Your task to perform on an android device: change the upload size in google photos Image 0: 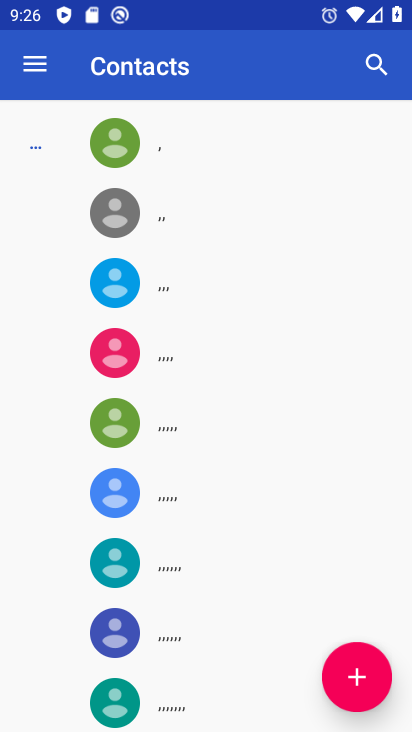
Step 0: press home button
Your task to perform on an android device: change the upload size in google photos Image 1: 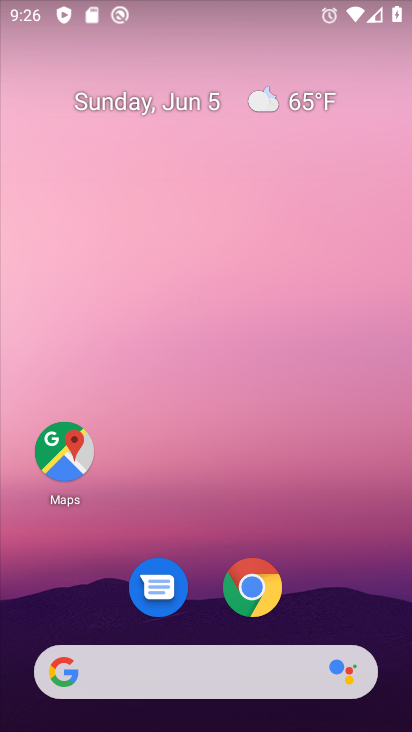
Step 1: drag from (79, 646) to (189, 100)
Your task to perform on an android device: change the upload size in google photos Image 2: 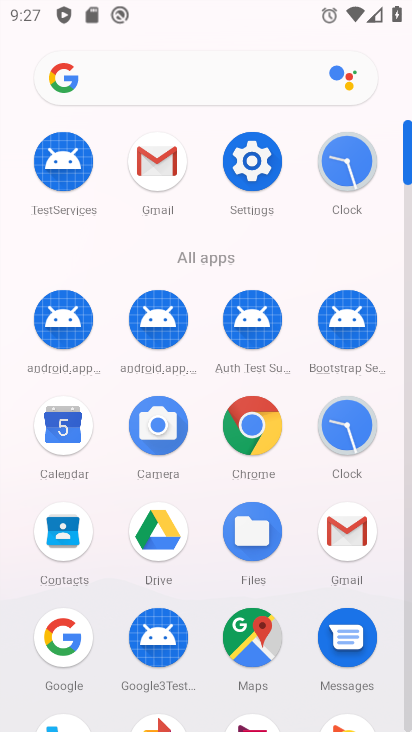
Step 2: drag from (238, 674) to (264, 447)
Your task to perform on an android device: change the upload size in google photos Image 3: 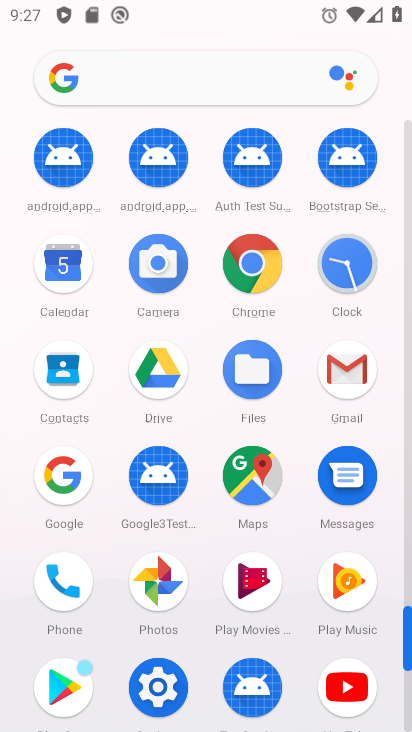
Step 3: click (155, 575)
Your task to perform on an android device: change the upload size in google photos Image 4: 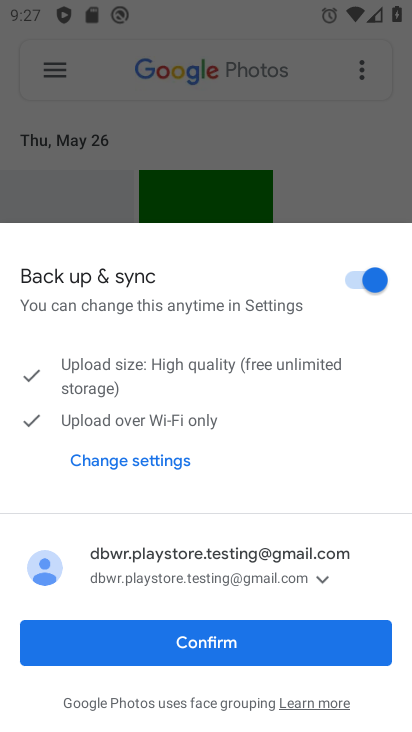
Step 4: click (236, 645)
Your task to perform on an android device: change the upload size in google photos Image 5: 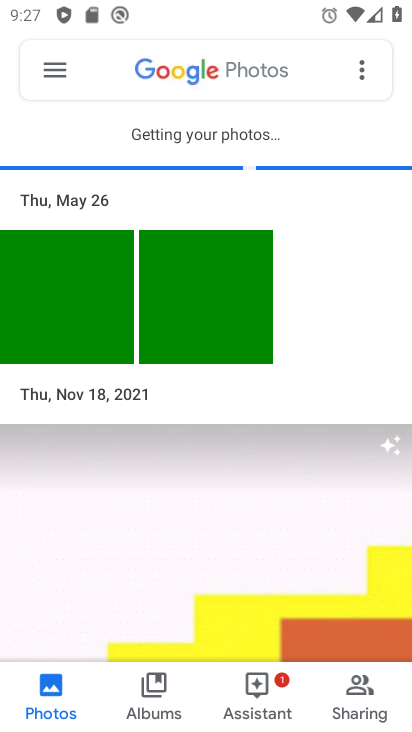
Step 5: click (43, 62)
Your task to perform on an android device: change the upload size in google photos Image 6: 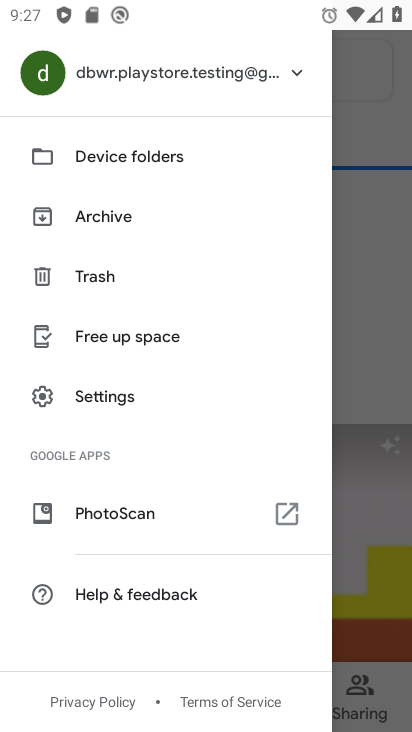
Step 6: drag from (169, 666) to (247, 220)
Your task to perform on an android device: change the upload size in google photos Image 7: 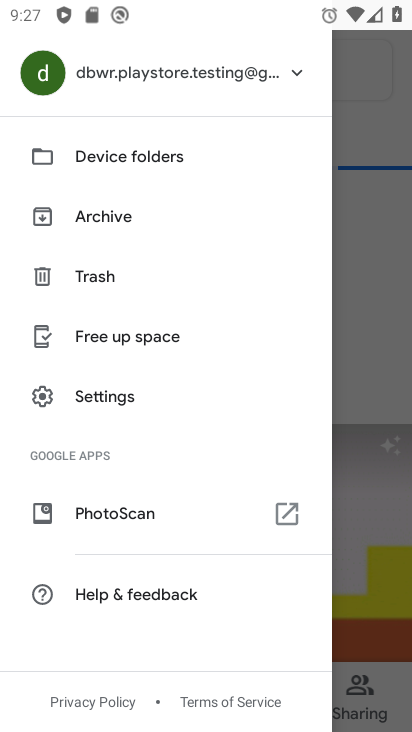
Step 7: click (156, 418)
Your task to perform on an android device: change the upload size in google photos Image 8: 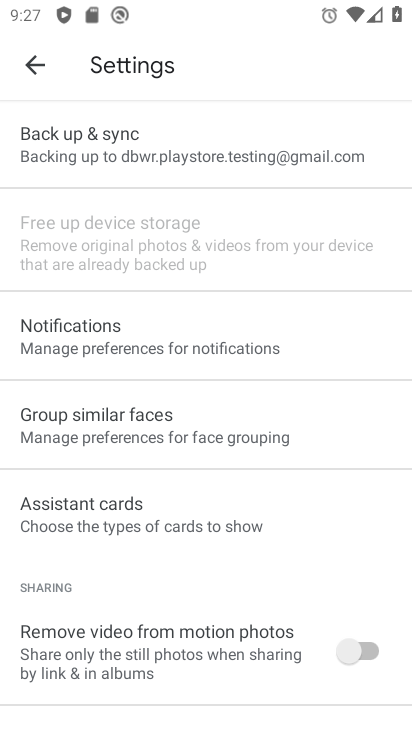
Step 8: click (234, 165)
Your task to perform on an android device: change the upload size in google photos Image 9: 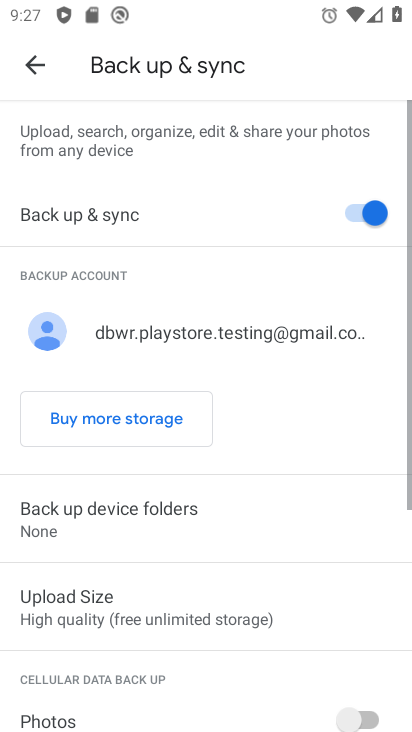
Step 9: drag from (216, 625) to (281, 278)
Your task to perform on an android device: change the upload size in google photos Image 10: 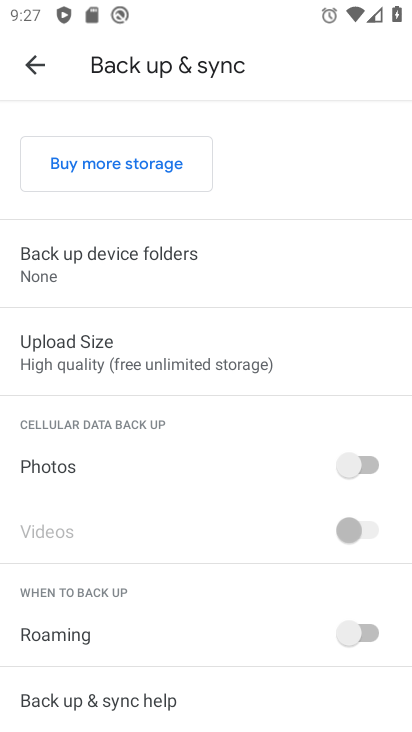
Step 10: click (213, 335)
Your task to perform on an android device: change the upload size in google photos Image 11: 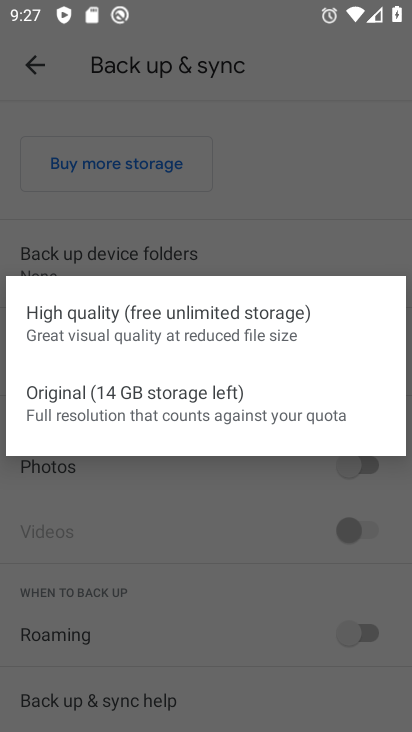
Step 11: click (180, 403)
Your task to perform on an android device: change the upload size in google photos Image 12: 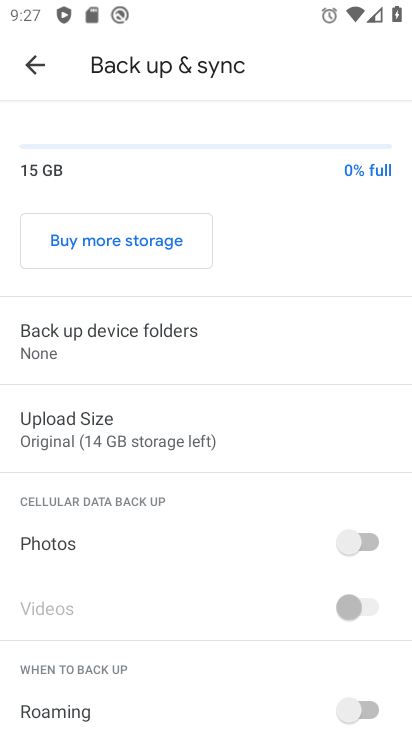
Step 12: task complete